Your task to perform on an android device: check android version Image 0: 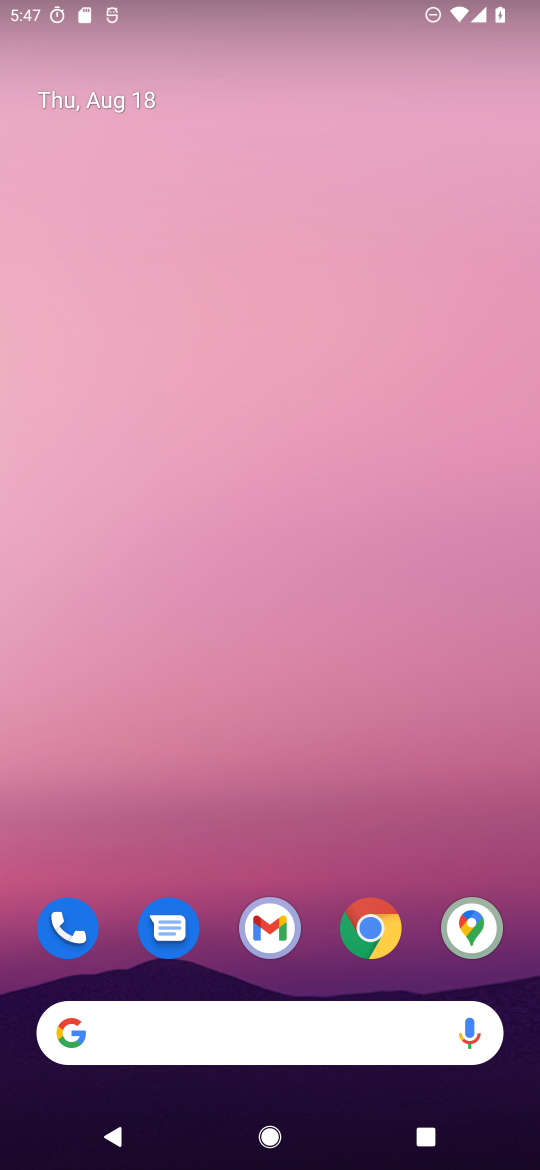
Step 0: drag from (298, 819) to (361, 32)
Your task to perform on an android device: check android version Image 1: 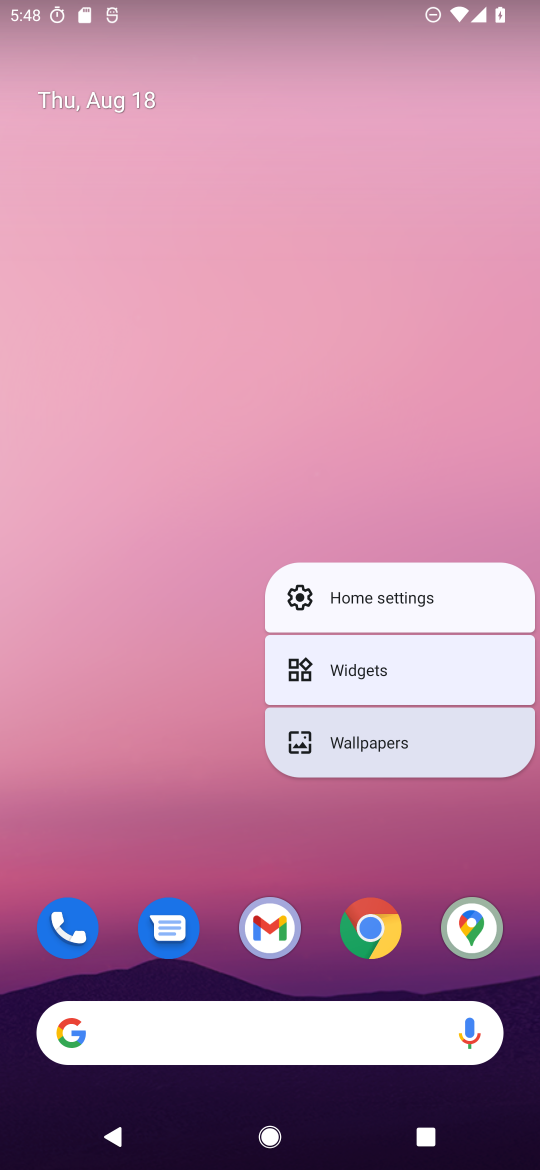
Step 1: click (198, 702)
Your task to perform on an android device: check android version Image 2: 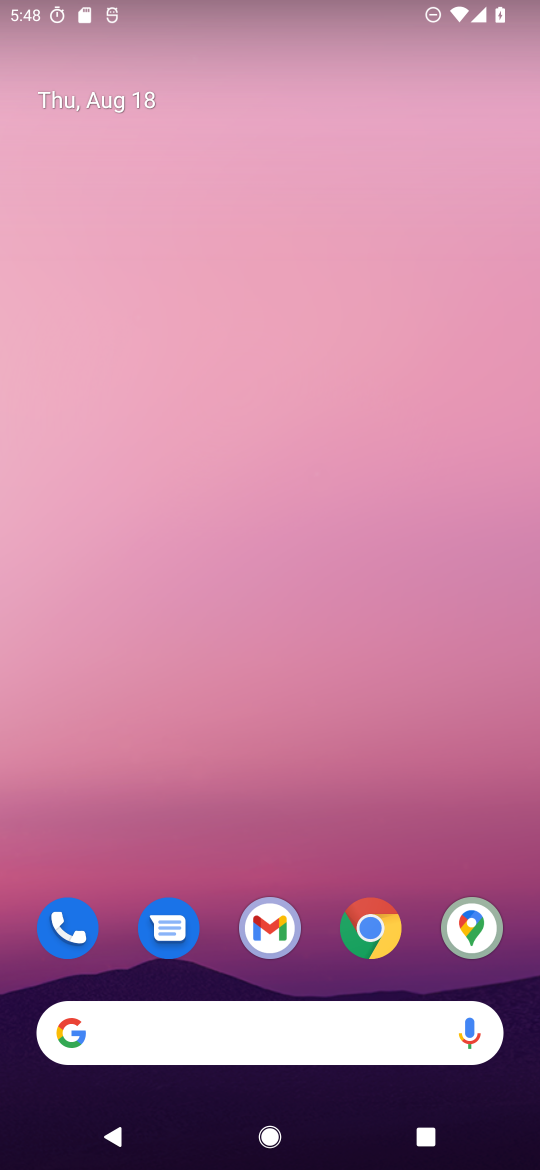
Step 2: drag from (231, 843) to (334, 9)
Your task to perform on an android device: check android version Image 3: 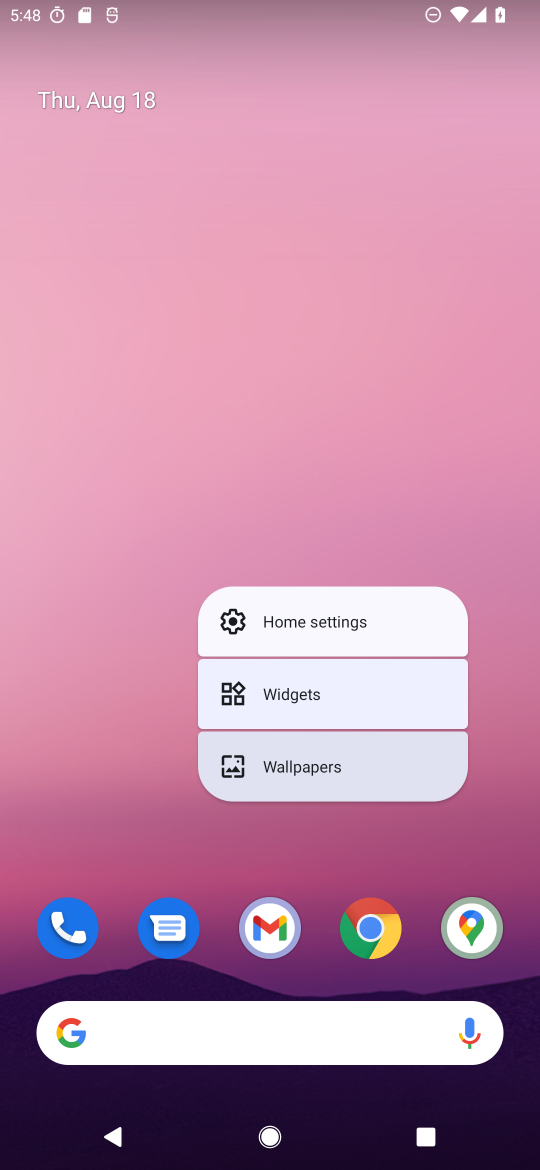
Step 3: click (401, 308)
Your task to perform on an android device: check android version Image 4: 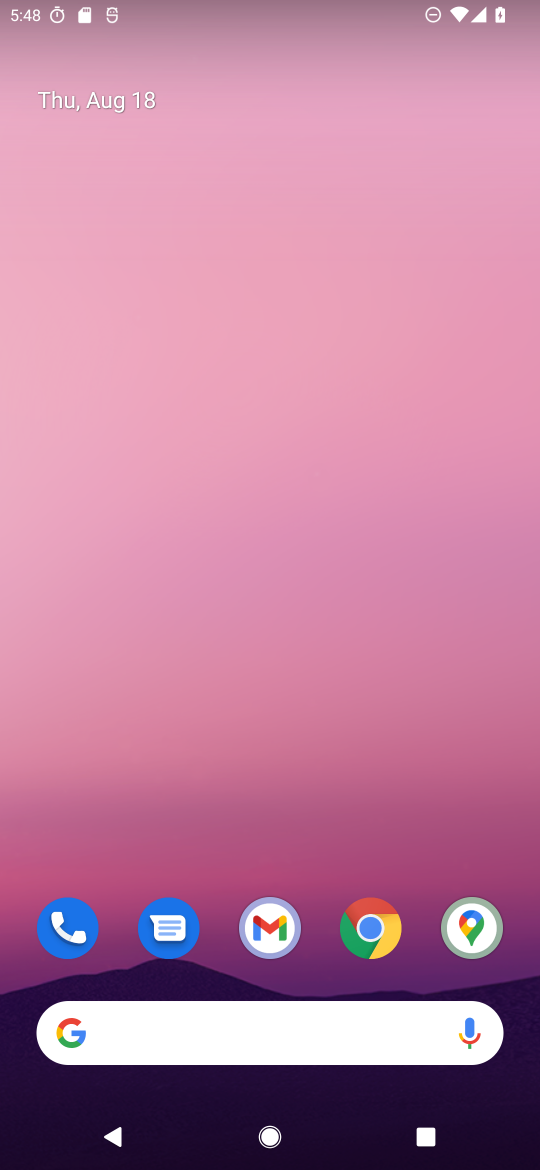
Step 4: drag from (324, 858) to (364, 200)
Your task to perform on an android device: check android version Image 5: 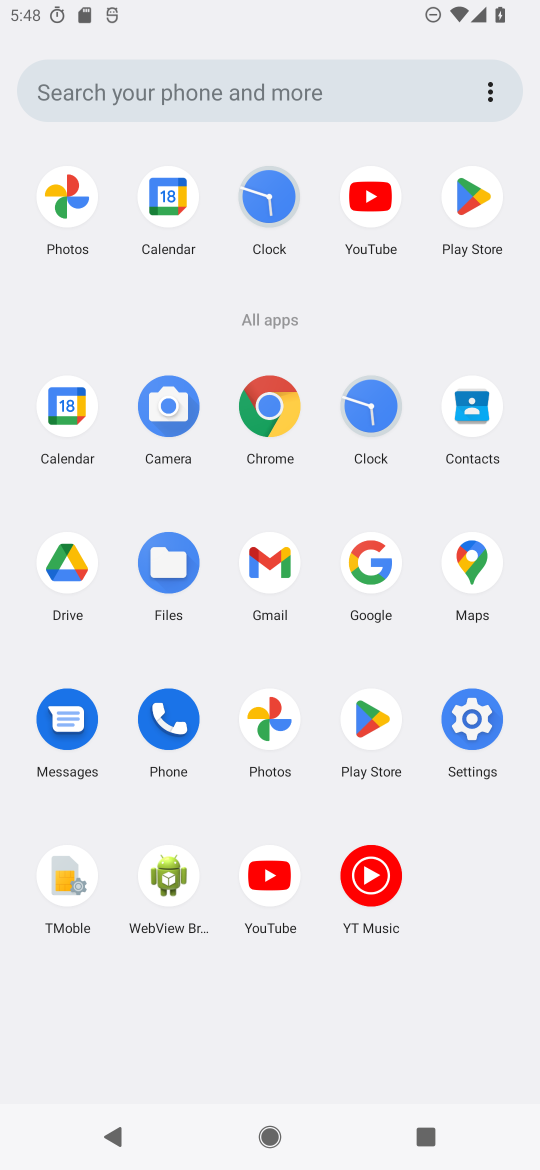
Step 5: click (479, 720)
Your task to perform on an android device: check android version Image 6: 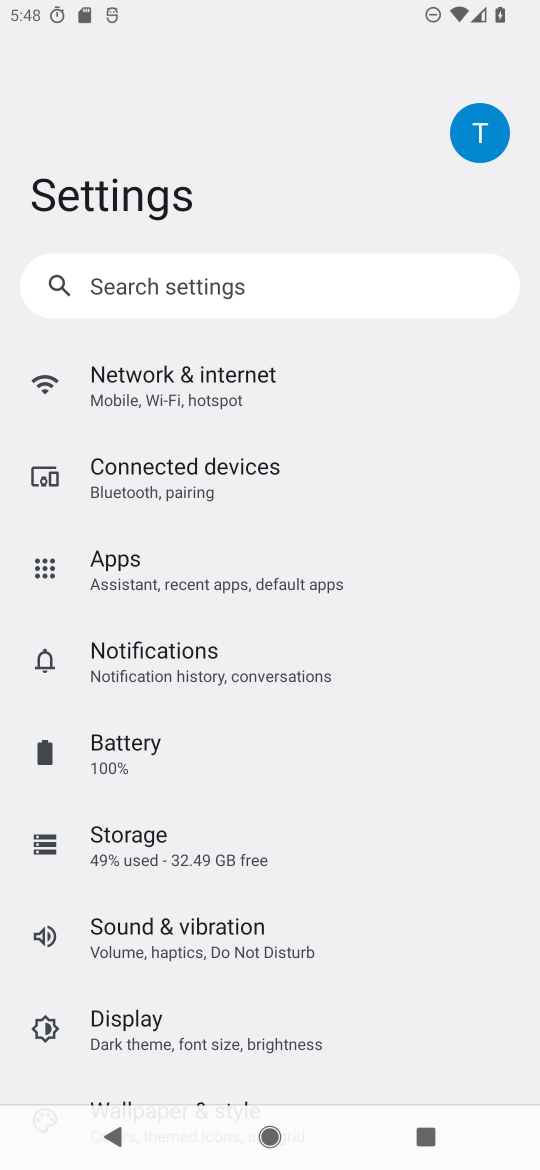
Step 6: drag from (289, 987) to (353, 148)
Your task to perform on an android device: check android version Image 7: 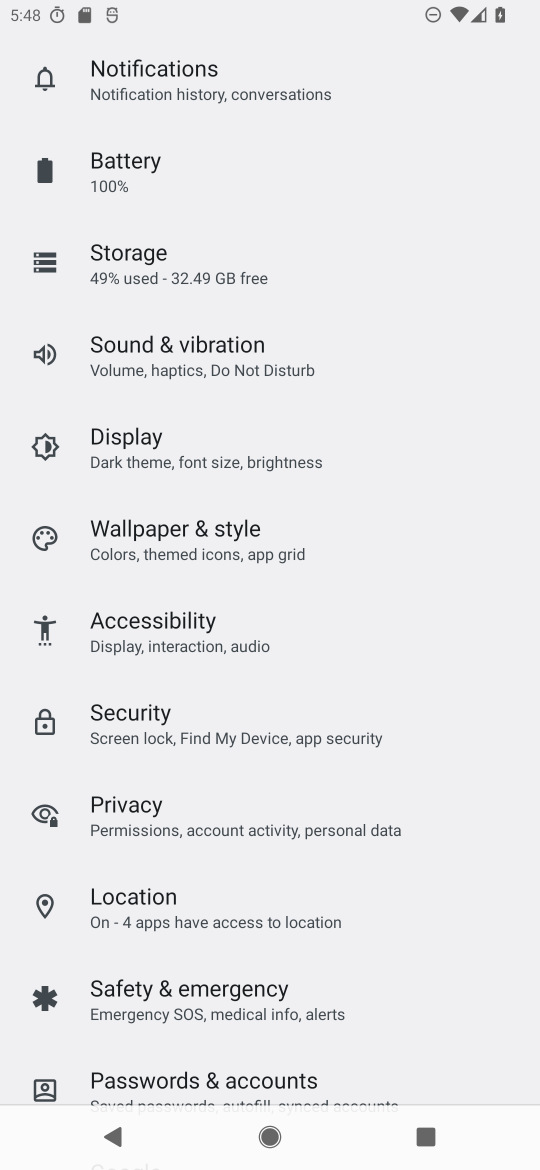
Step 7: drag from (197, 863) to (323, 131)
Your task to perform on an android device: check android version Image 8: 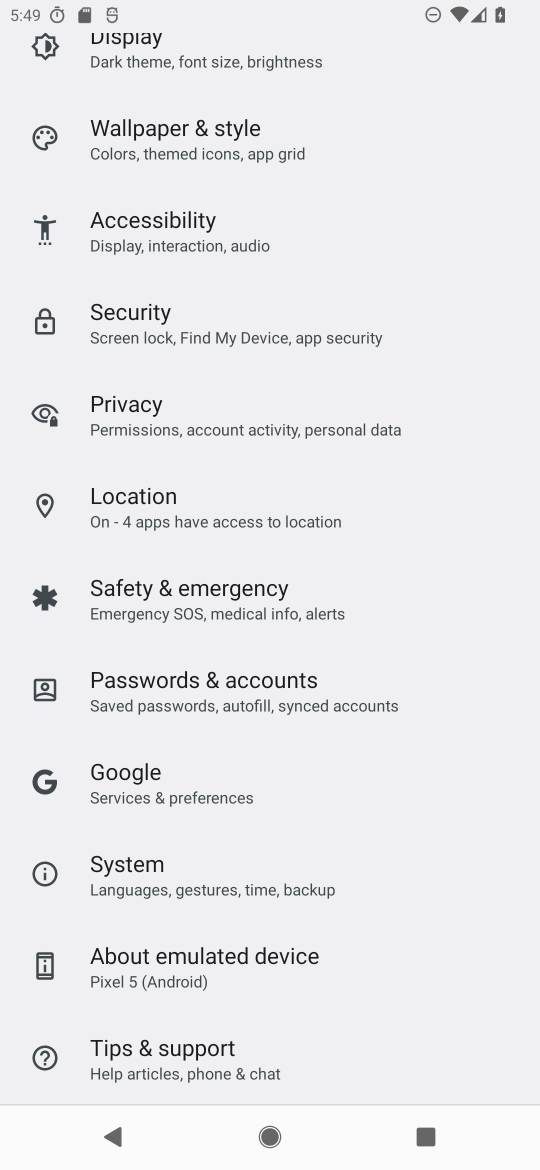
Step 8: drag from (374, 1001) to (359, 367)
Your task to perform on an android device: check android version Image 9: 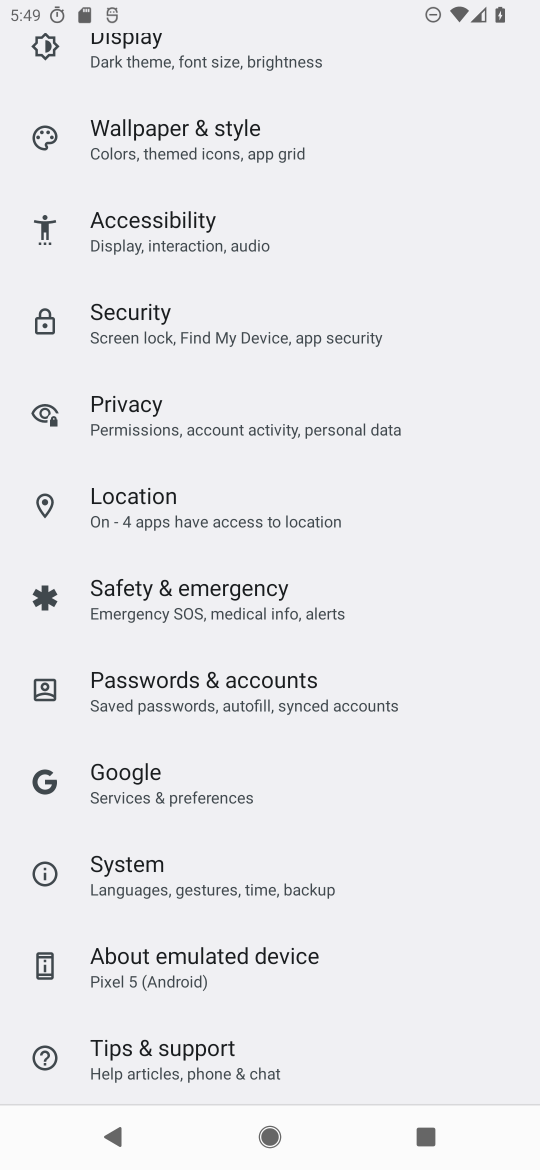
Step 9: click (219, 964)
Your task to perform on an android device: check android version Image 10: 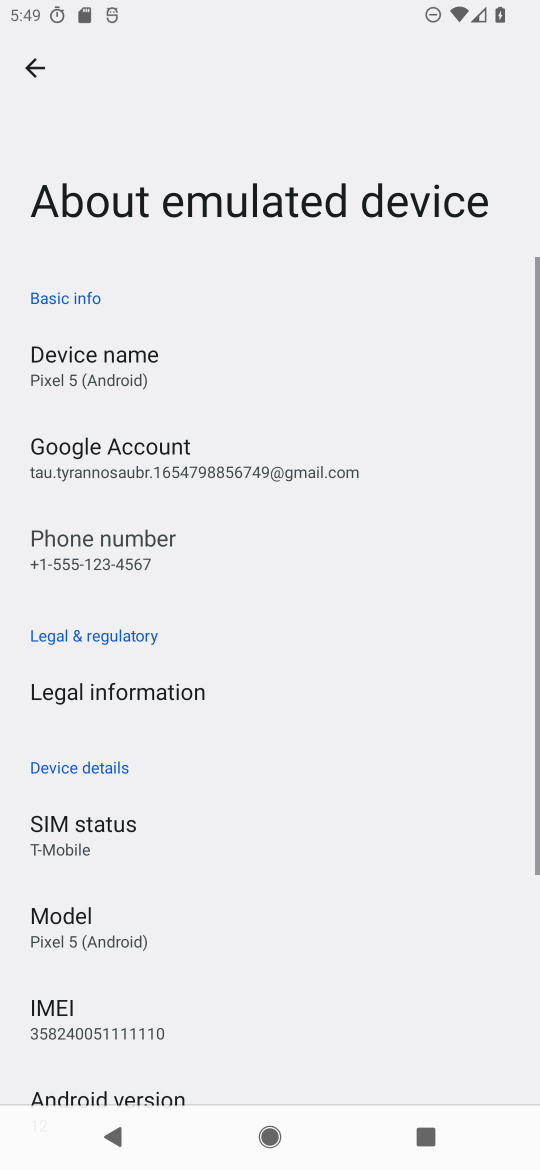
Step 10: drag from (192, 983) to (331, 251)
Your task to perform on an android device: check android version Image 11: 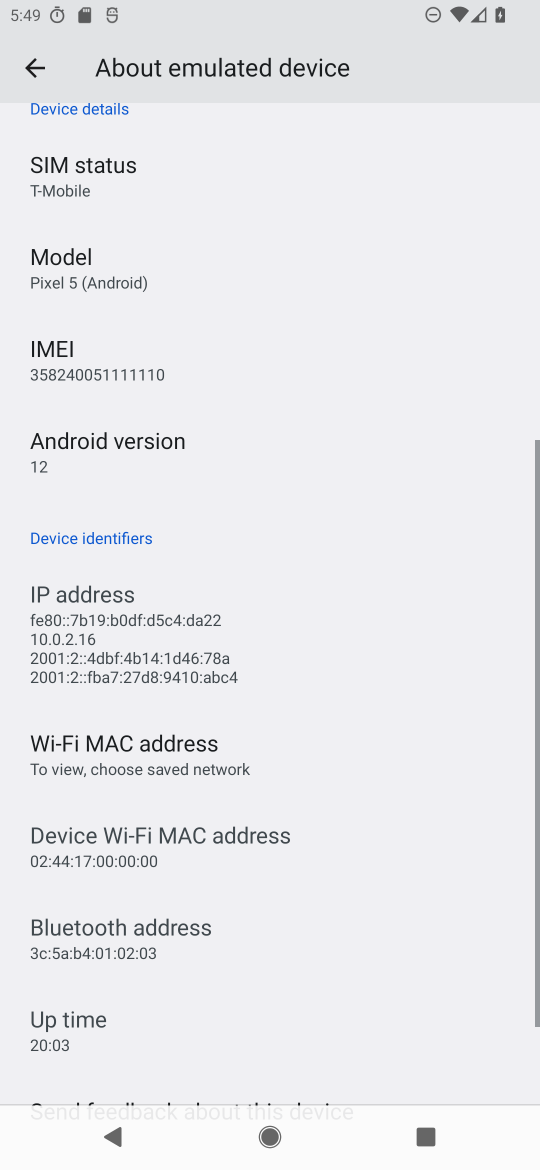
Step 11: click (141, 471)
Your task to perform on an android device: check android version Image 12: 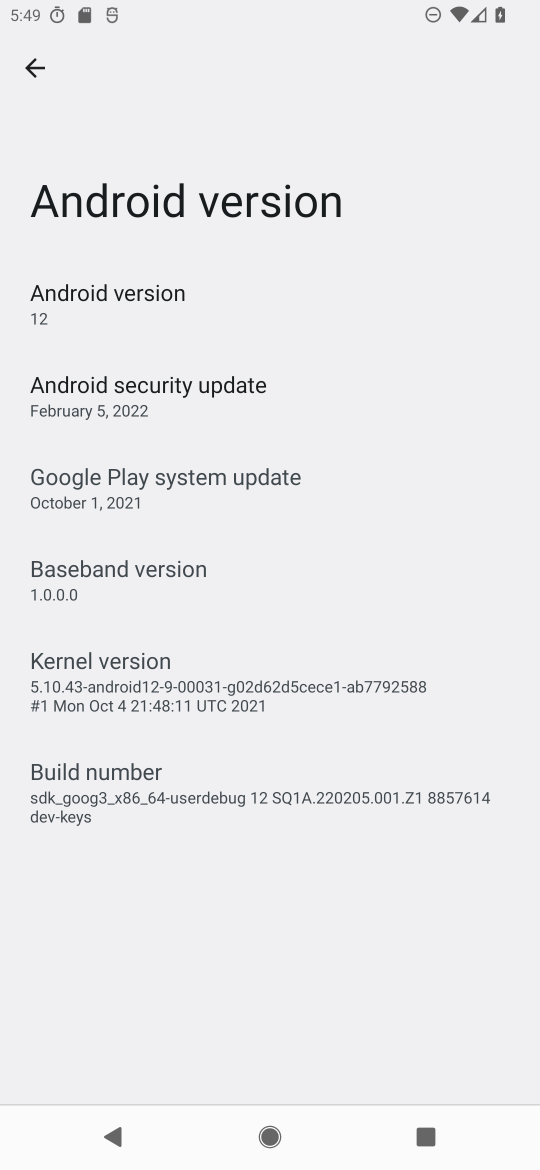
Step 12: task complete